Your task to perform on an android device: Open Yahoo.com Image 0: 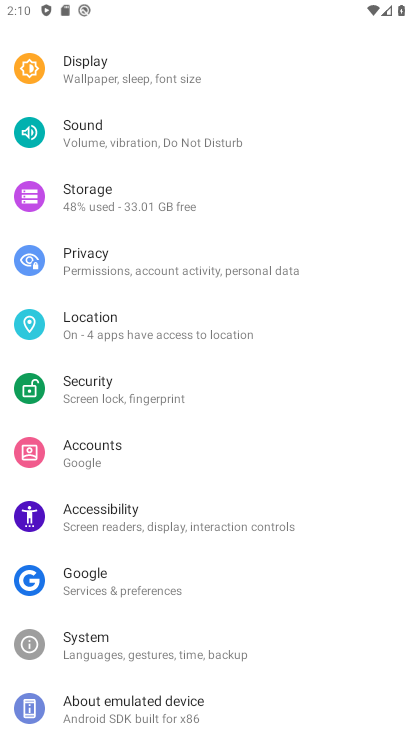
Step 0: press home button
Your task to perform on an android device: Open Yahoo.com Image 1: 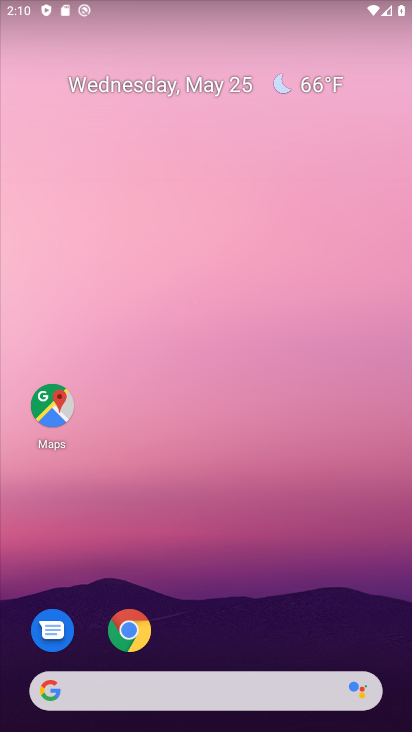
Step 1: click (126, 630)
Your task to perform on an android device: Open Yahoo.com Image 2: 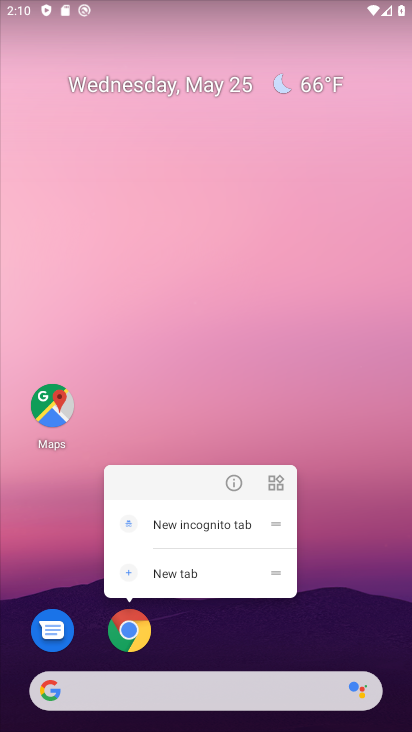
Step 2: click (126, 630)
Your task to perform on an android device: Open Yahoo.com Image 3: 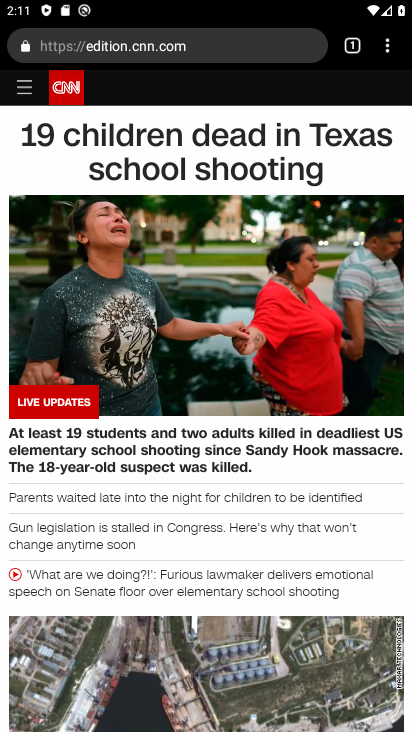
Step 3: click (344, 45)
Your task to perform on an android device: Open Yahoo.com Image 4: 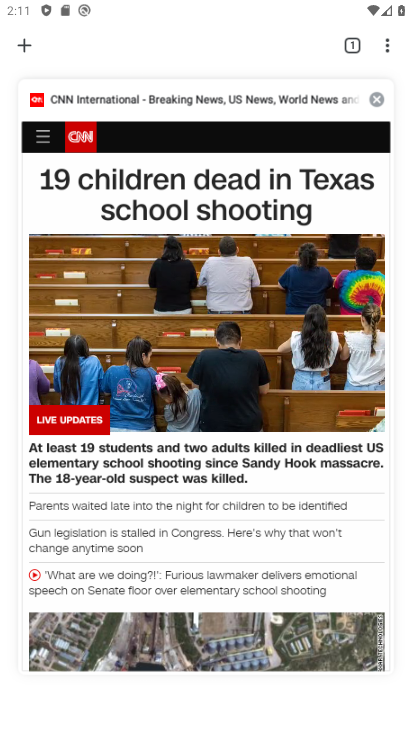
Step 4: click (369, 91)
Your task to perform on an android device: Open Yahoo.com Image 5: 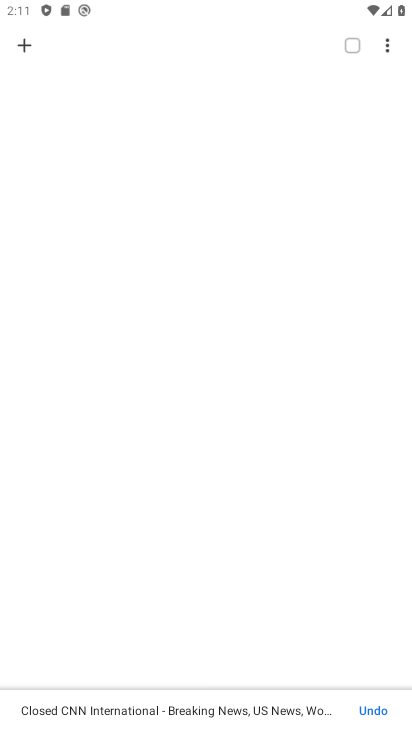
Step 5: click (25, 44)
Your task to perform on an android device: Open Yahoo.com Image 6: 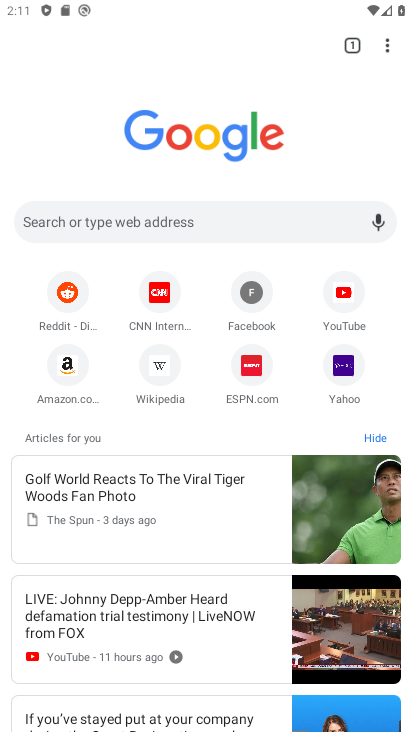
Step 6: click (342, 364)
Your task to perform on an android device: Open Yahoo.com Image 7: 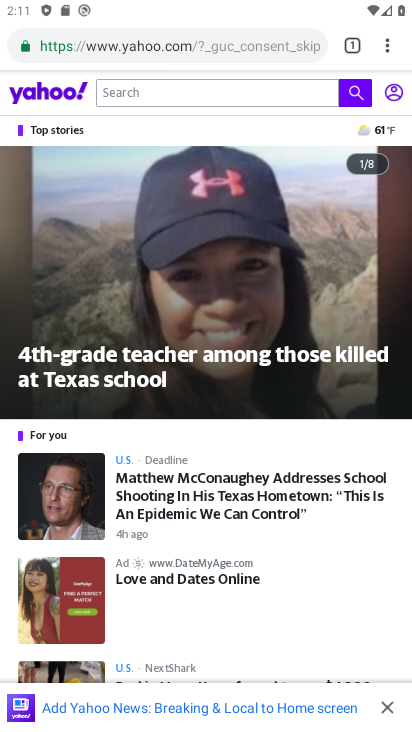
Step 7: task complete